Your task to perform on an android device: What is the news today? Image 0: 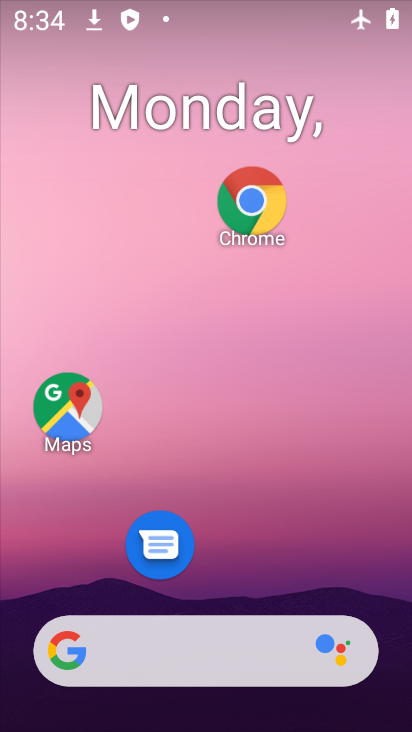
Step 0: drag from (245, 582) to (247, 133)
Your task to perform on an android device: What is the news today? Image 1: 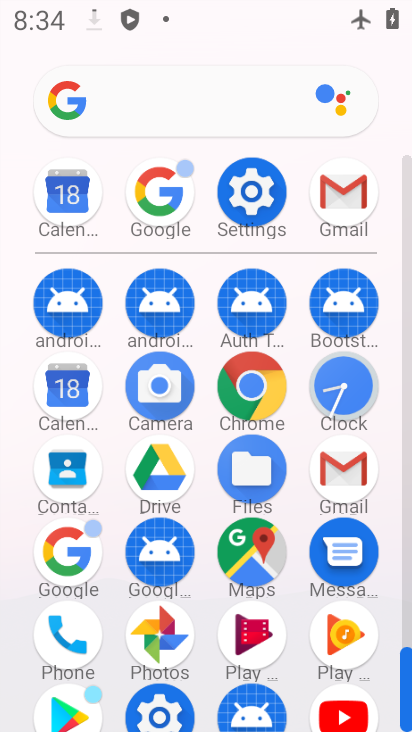
Step 1: click (162, 199)
Your task to perform on an android device: What is the news today? Image 2: 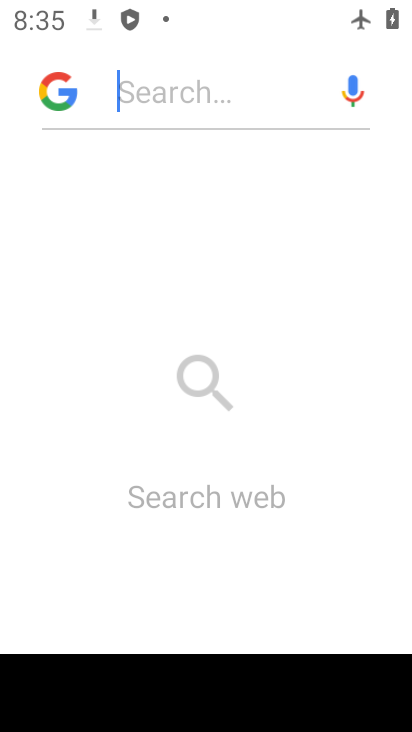
Step 2: click (51, 100)
Your task to perform on an android device: What is the news today? Image 3: 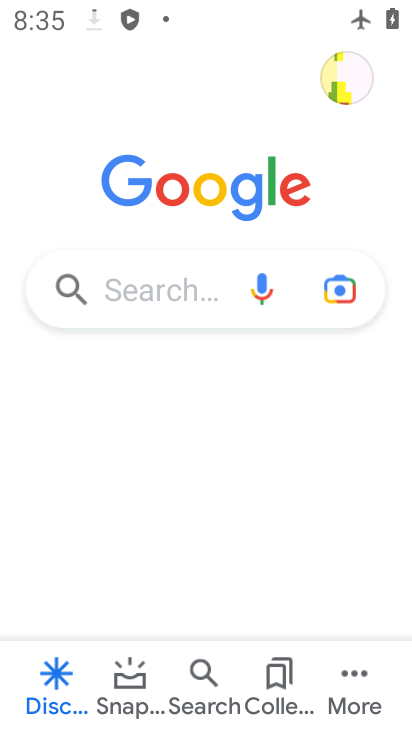
Step 3: task complete